Your task to perform on an android device: Open internet settings Image 0: 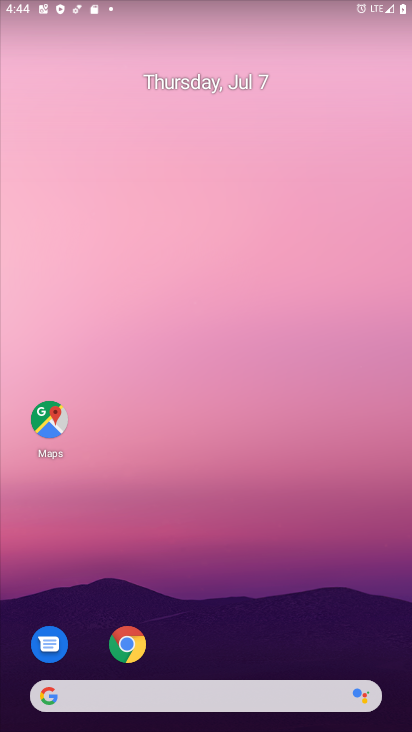
Step 0: drag from (254, 603) to (286, 98)
Your task to perform on an android device: Open internet settings Image 1: 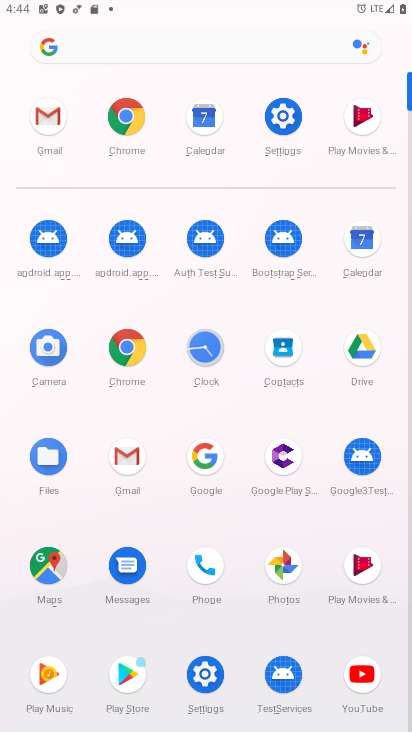
Step 1: click (284, 117)
Your task to perform on an android device: Open internet settings Image 2: 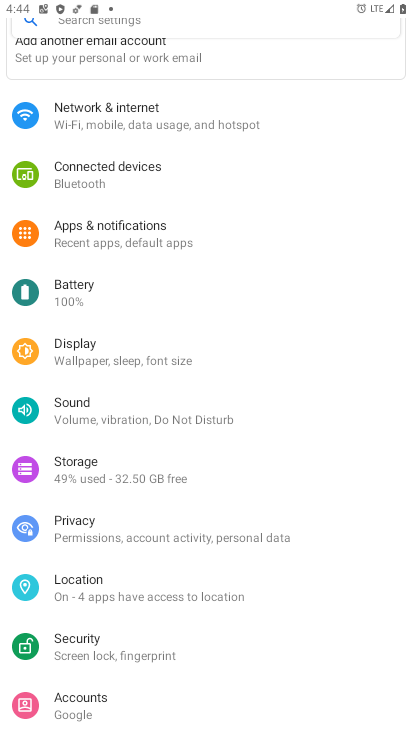
Step 2: click (144, 124)
Your task to perform on an android device: Open internet settings Image 3: 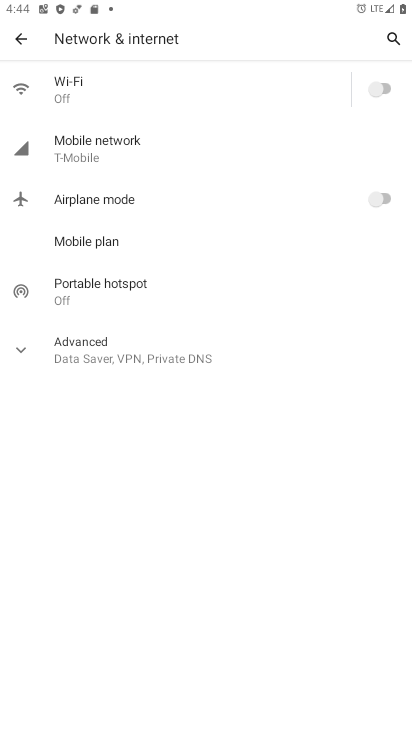
Step 3: task complete